Your task to perform on an android device: turn on airplane mode Image 0: 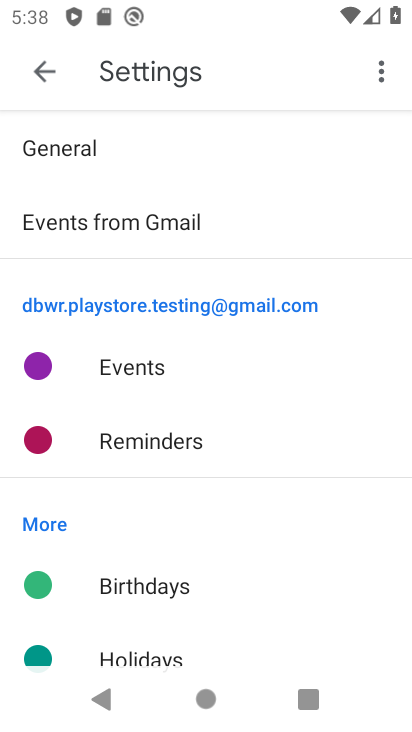
Step 0: press home button
Your task to perform on an android device: turn on airplane mode Image 1: 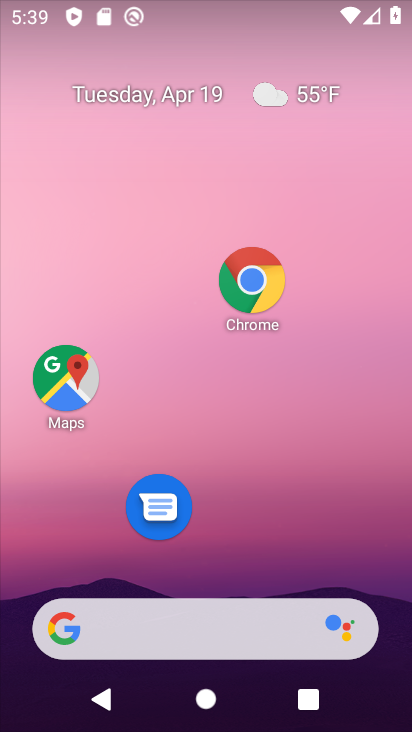
Step 1: drag from (211, 594) to (214, 214)
Your task to perform on an android device: turn on airplane mode Image 2: 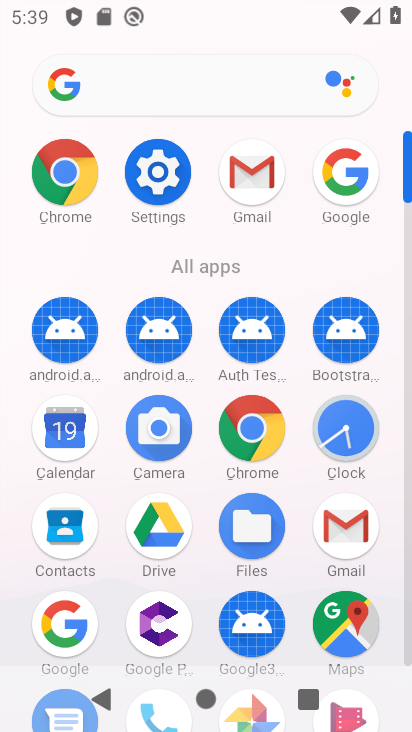
Step 2: click (159, 179)
Your task to perform on an android device: turn on airplane mode Image 3: 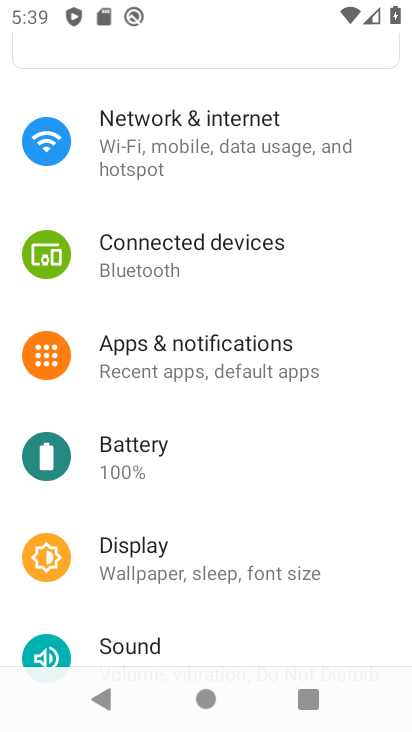
Step 3: click (176, 149)
Your task to perform on an android device: turn on airplane mode Image 4: 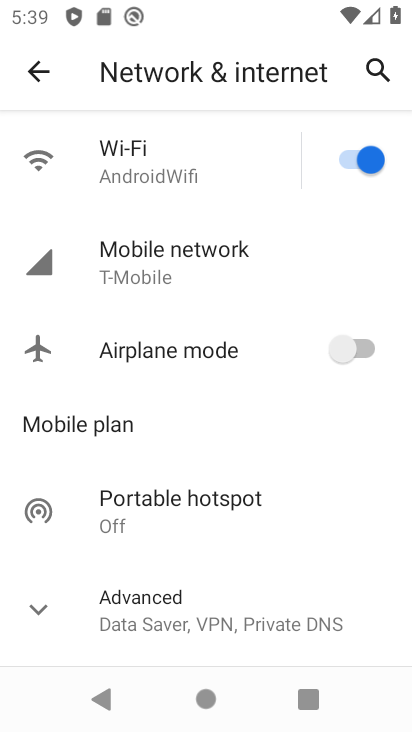
Step 4: click (359, 352)
Your task to perform on an android device: turn on airplane mode Image 5: 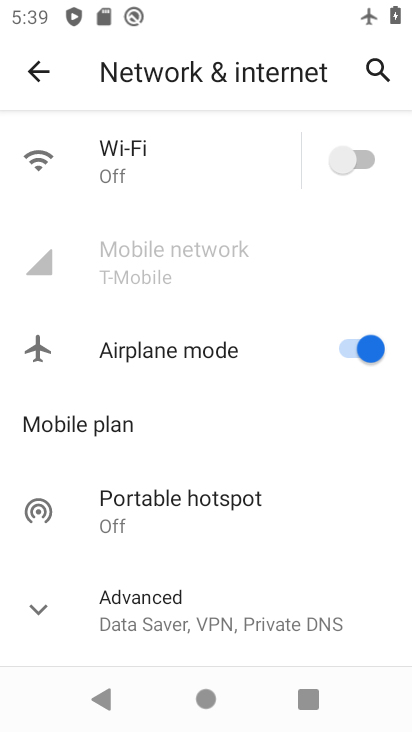
Step 5: task complete